Your task to perform on an android device: Show me productivity apps on the Play Store Image 0: 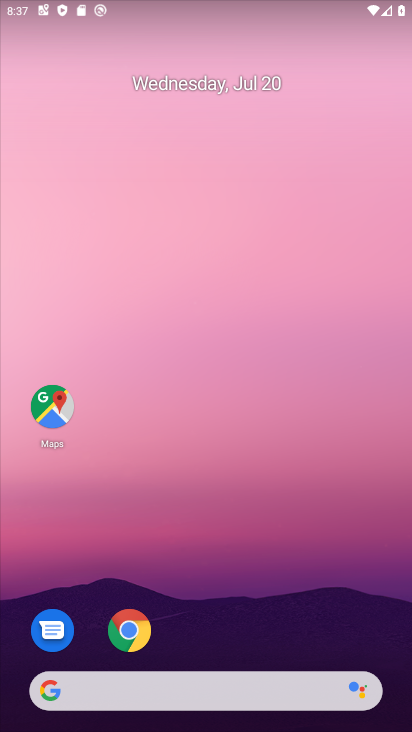
Step 0: drag from (389, 700) to (305, 80)
Your task to perform on an android device: Show me productivity apps on the Play Store Image 1: 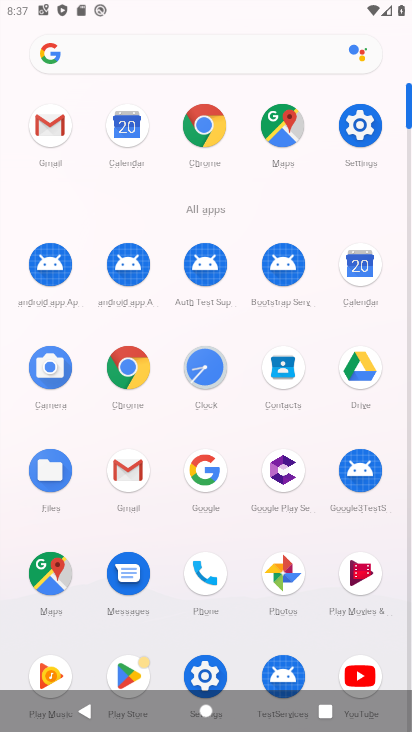
Step 1: click (134, 667)
Your task to perform on an android device: Show me productivity apps on the Play Store Image 2: 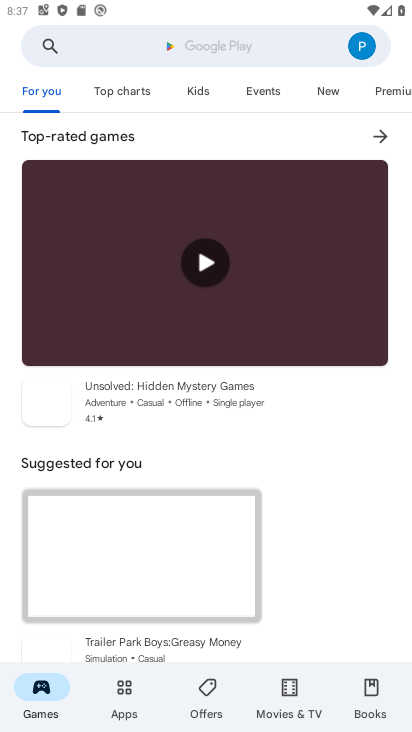
Step 2: click (111, 36)
Your task to perform on an android device: Show me productivity apps on the Play Store Image 3: 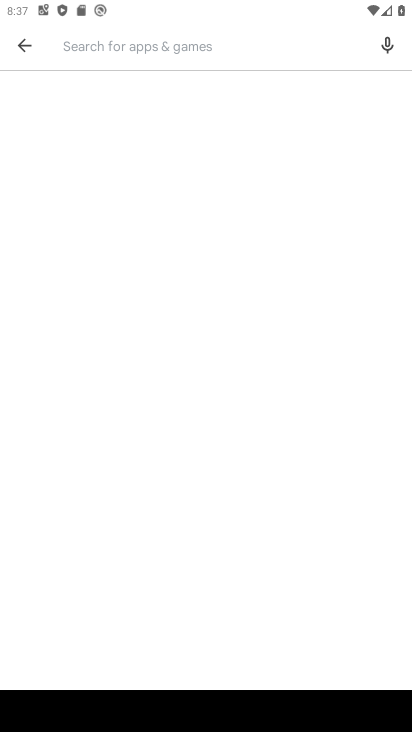
Step 3: type "productivity apps on the Play Store"
Your task to perform on an android device: Show me productivity apps on the Play Store Image 4: 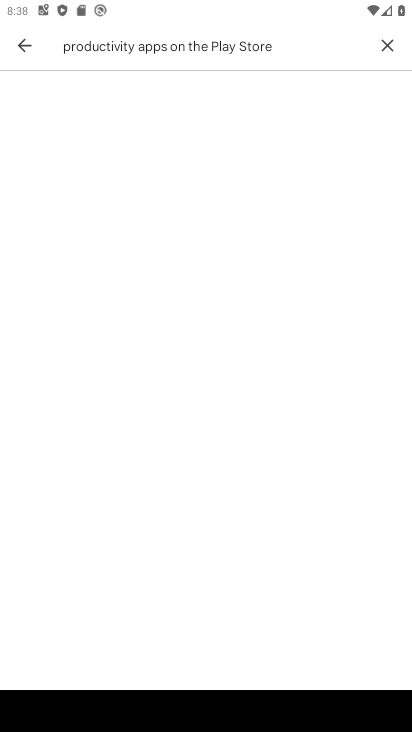
Step 4: task complete